Your task to perform on an android device: turn on airplane mode Image 0: 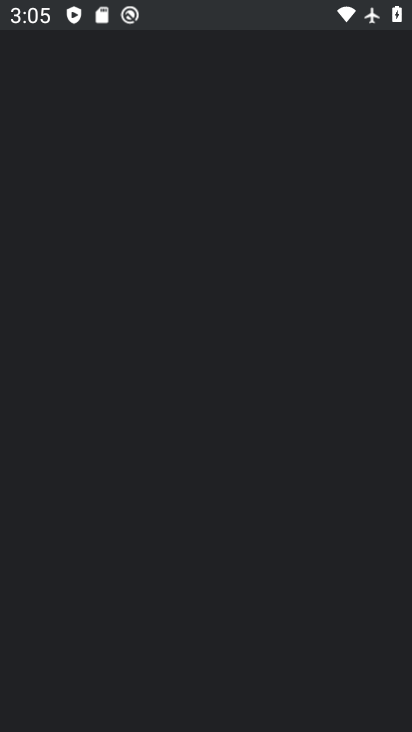
Step 0: drag from (209, 608) to (203, 141)
Your task to perform on an android device: turn on airplane mode Image 1: 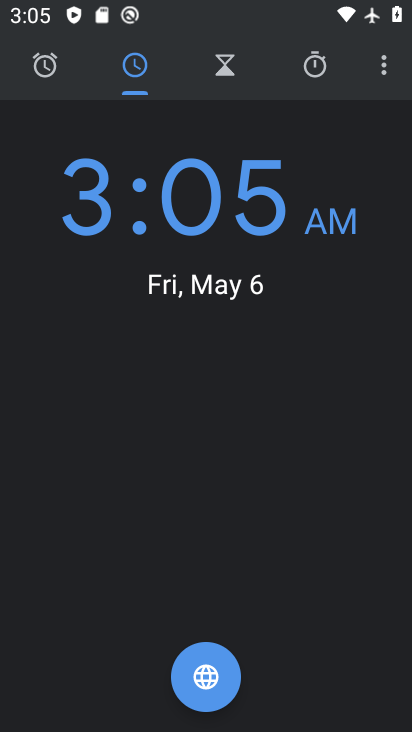
Step 1: task complete